Your task to perform on an android device: clear history in the chrome app Image 0: 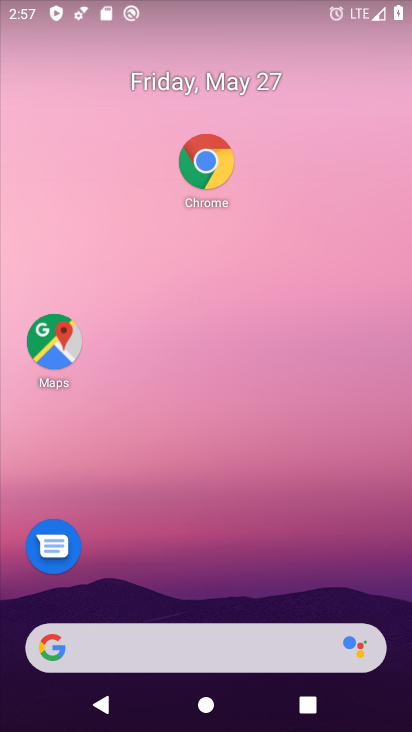
Step 0: click (191, 139)
Your task to perform on an android device: clear history in the chrome app Image 1: 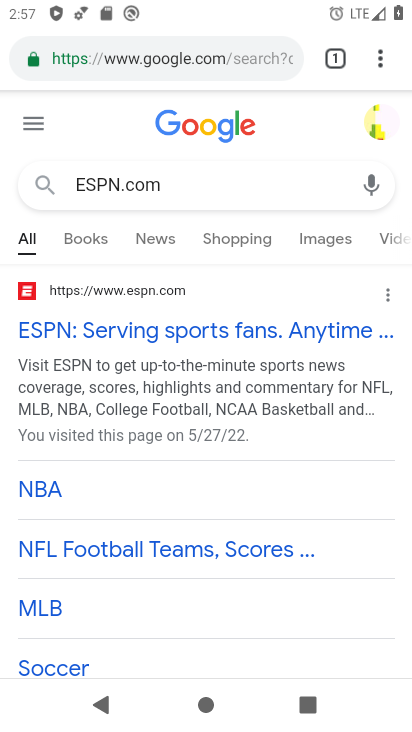
Step 1: click (379, 52)
Your task to perform on an android device: clear history in the chrome app Image 2: 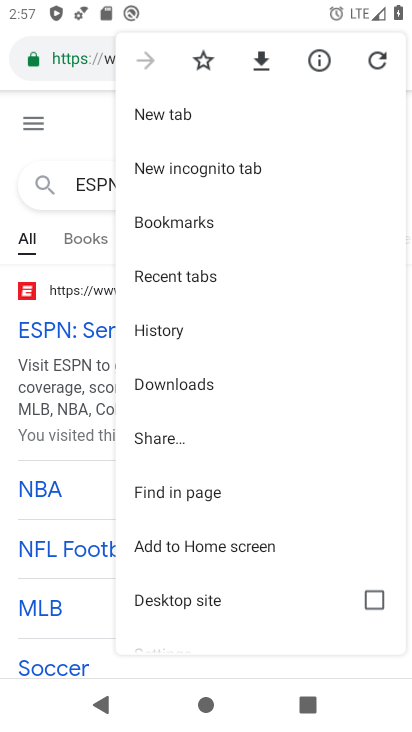
Step 2: click (178, 333)
Your task to perform on an android device: clear history in the chrome app Image 3: 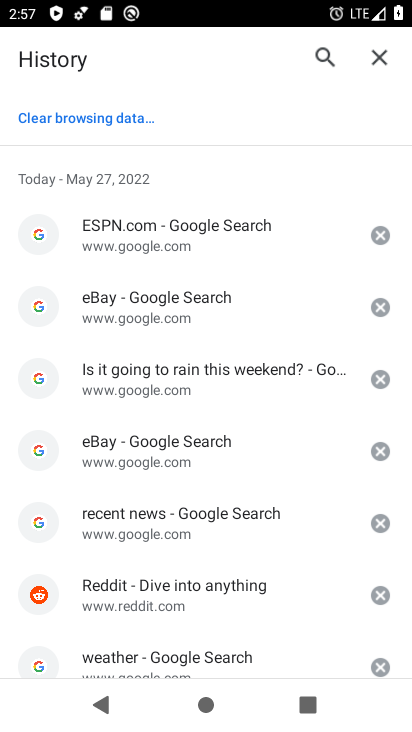
Step 3: click (50, 120)
Your task to perform on an android device: clear history in the chrome app Image 4: 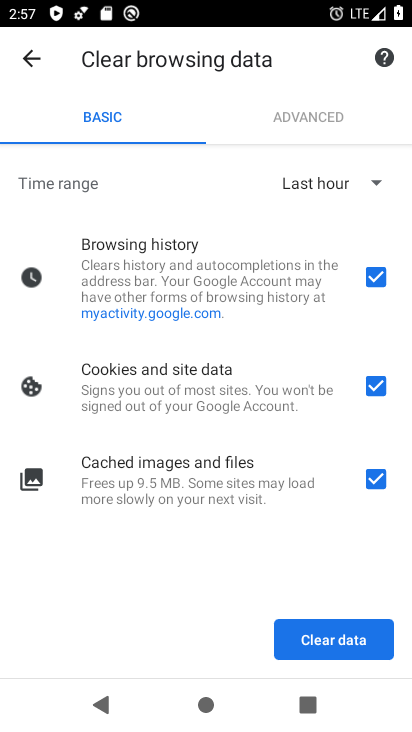
Step 4: click (373, 384)
Your task to perform on an android device: clear history in the chrome app Image 5: 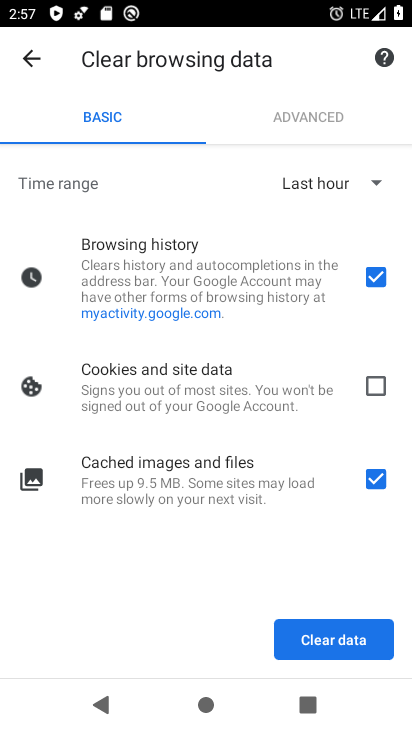
Step 5: click (379, 479)
Your task to perform on an android device: clear history in the chrome app Image 6: 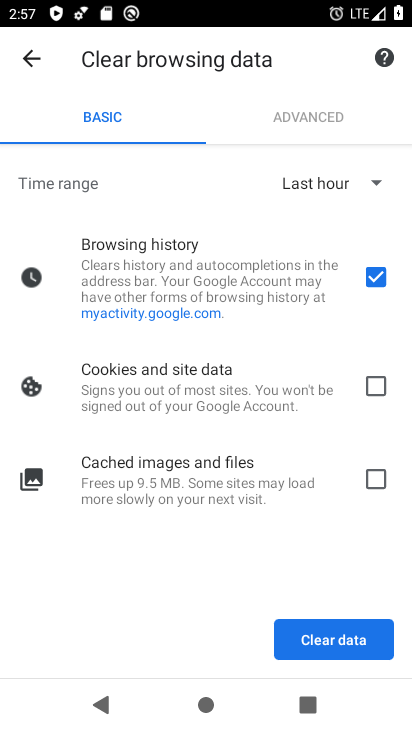
Step 6: click (377, 473)
Your task to perform on an android device: clear history in the chrome app Image 7: 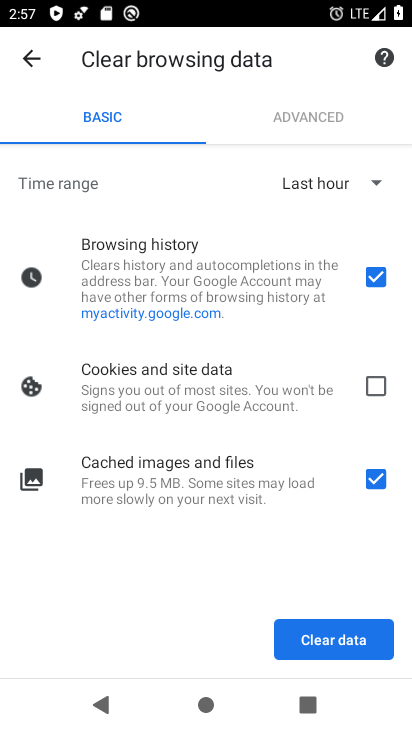
Step 7: click (333, 640)
Your task to perform on an android device: clear history in the chrome app Image 8: 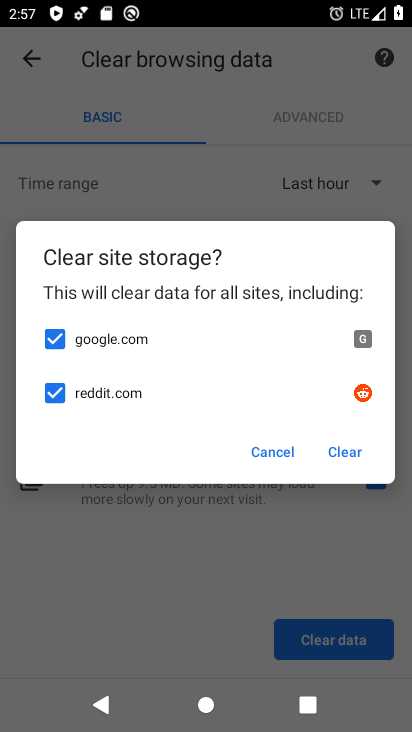
Step 8: click (358, 453)
Your task to perform on an android device: clear history in the chrome app Image 9: 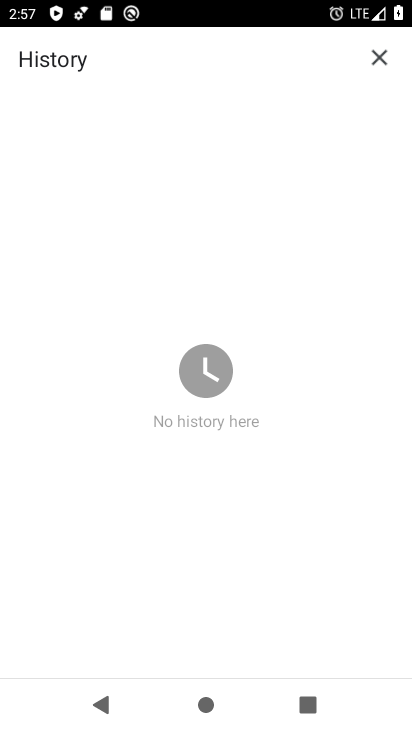
Step 9: task complete